Your task to perform on an android device: What's the weather? Image 0: 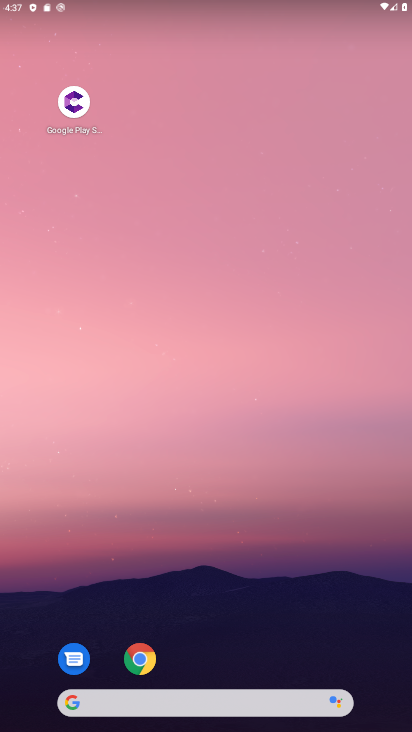
Step 0: drag from (264, 556) to (286, 8)
Your task to perform on an android device: What's the weather? Image 1: 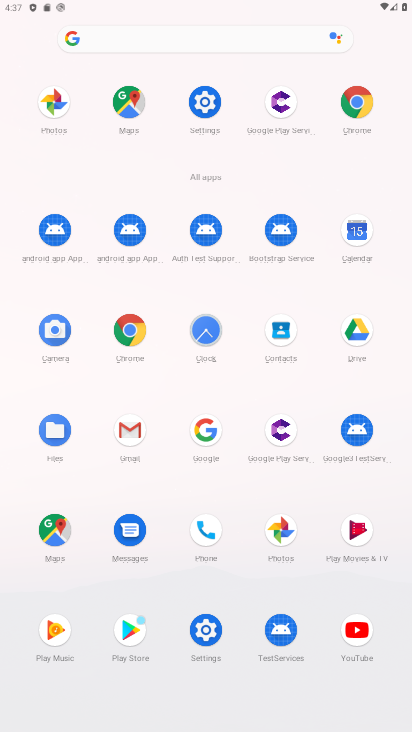
Step 1: click (210, 428)
Your task to perform on an android device: What's the weather? Image 2: 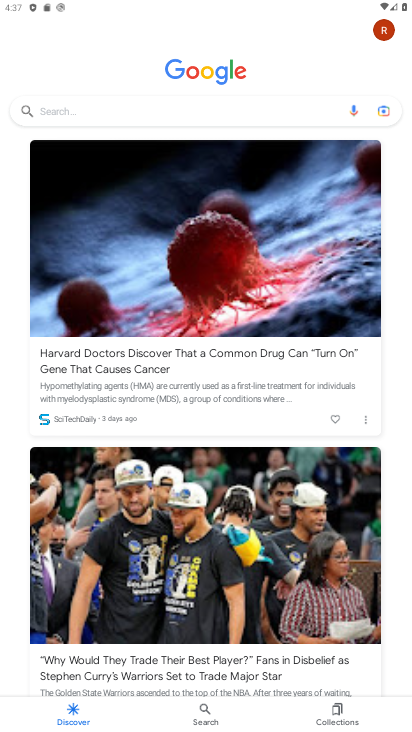
Step 2: click (144, 107)
Your task to perform on an android device: What's the weather? Image 3: 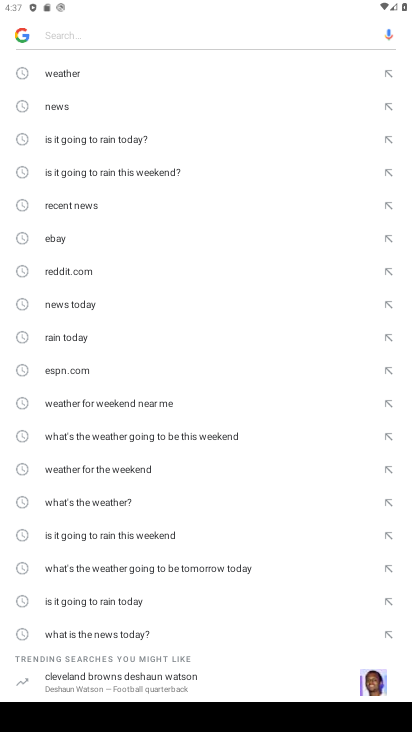
Step 3: click (72, 71)
Your task to perform on an android device: What's the weather? Image 4: 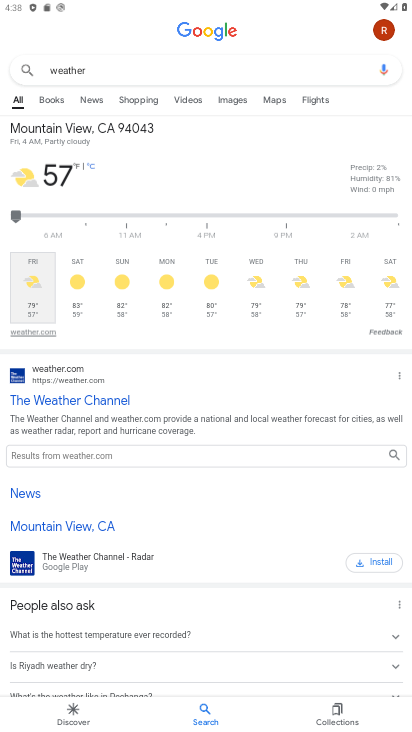
Step 4: task complete